Your task to perform on an android device: turn on wifi Image 0: 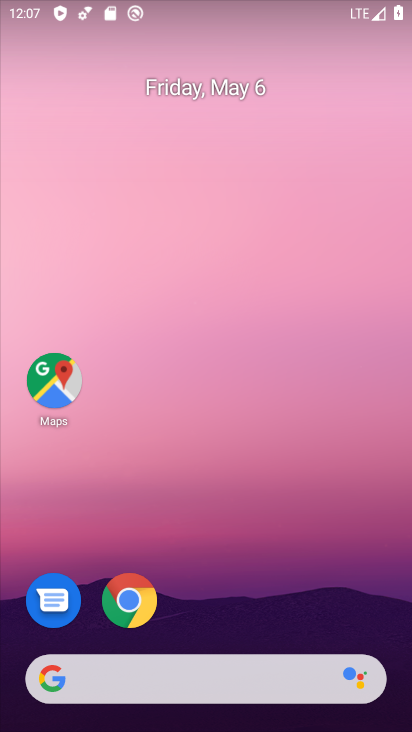
Step 0: drag from (215, 8) to (237, 489)
Your task to perform on an android device: turn on wifi Image 1: 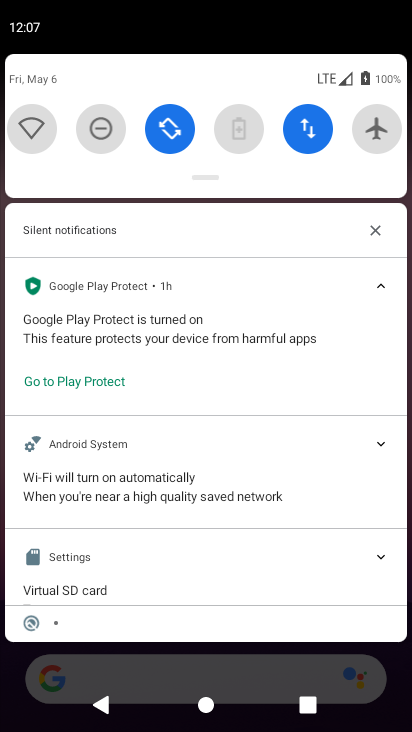
Step 1: click (31, 111)
Your task to perform on an android device: turn on wifi Image 2: 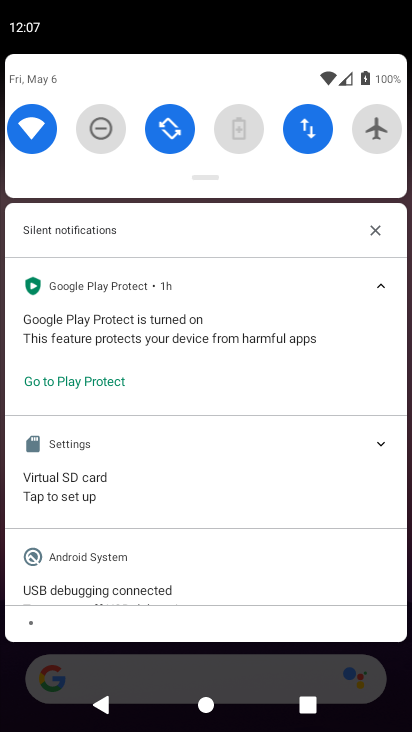
Step 2: task complete